Your task to perform on an android device: See recent photos Image 0: 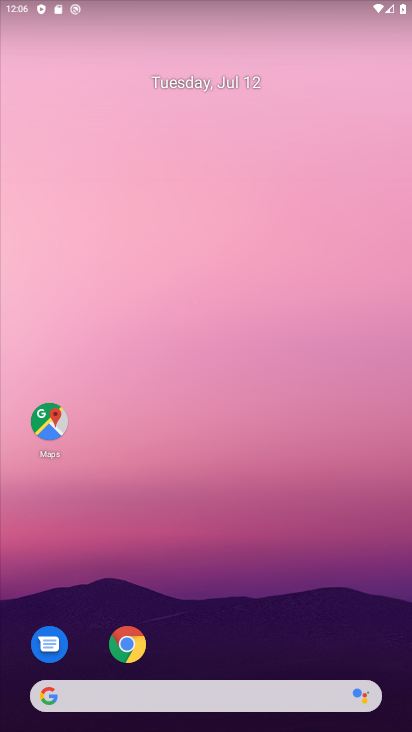
Step 0: drag from (175, 316) to (219, 107)
Your task to perform on an android device: See recent photos Image 1: 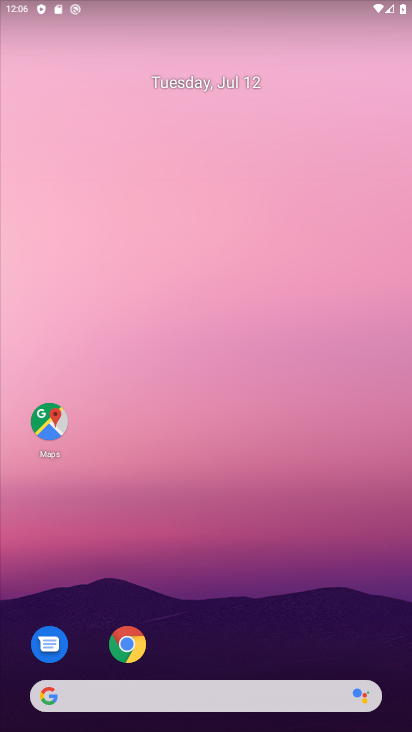
Step 1: drag from (57, 598) to (358, 23)
Your task to perform on an android device: See recent photos Image 2: 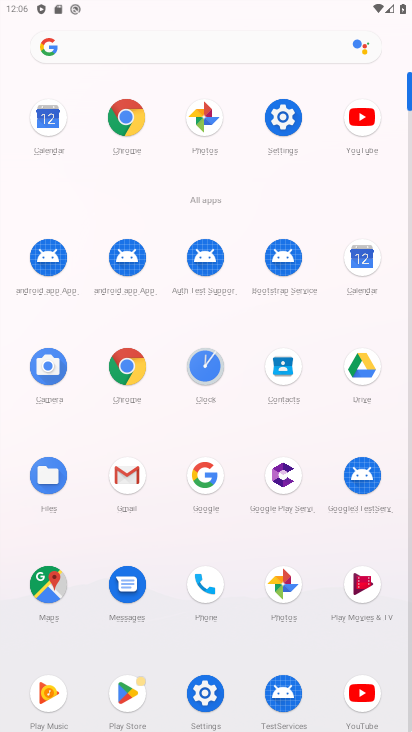
Step 2: click (275, 583)
Your task to perform on an android device: See recent photos Image 3: 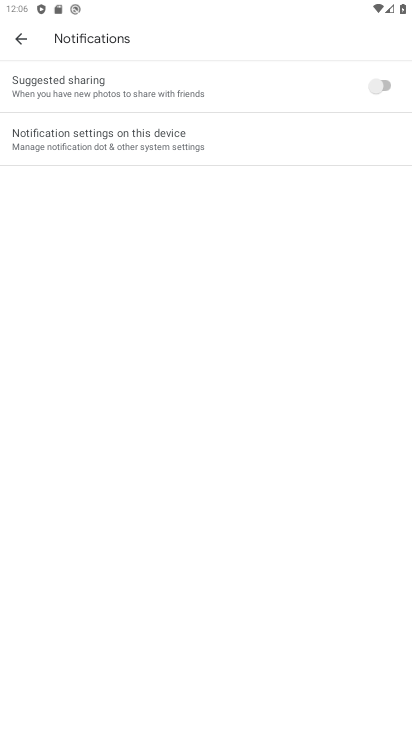
Step 3: click (13, 40)
Your task to perform on an android device: See recent photos Image 4: 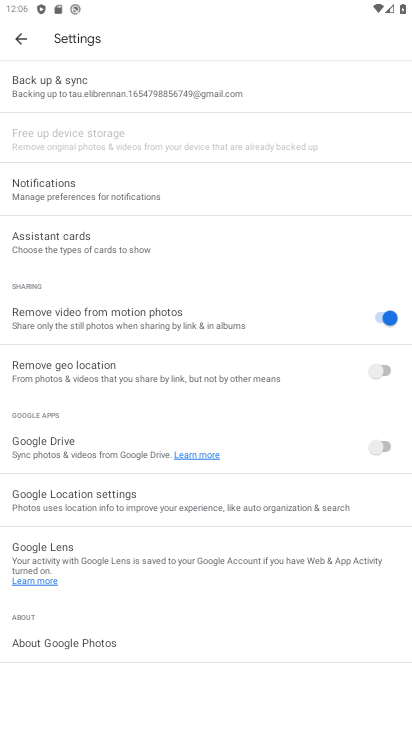
Step 4: click (15, 41)
Your task to perform on an android device: See recent photos Image 5: 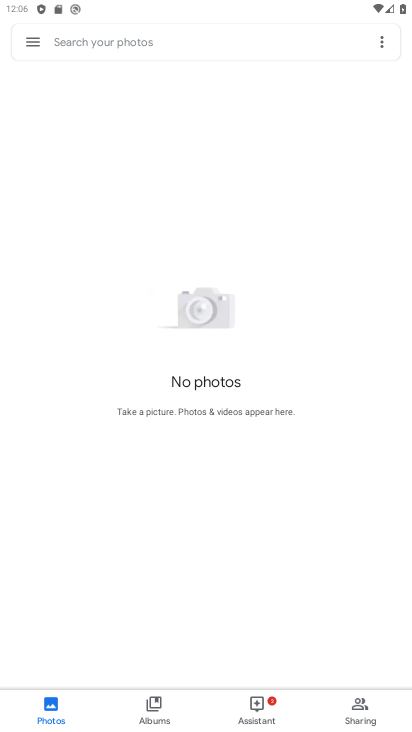
Step 5: task complete